Your task to perform on an android device: empty trash in the gmail app Image 0: 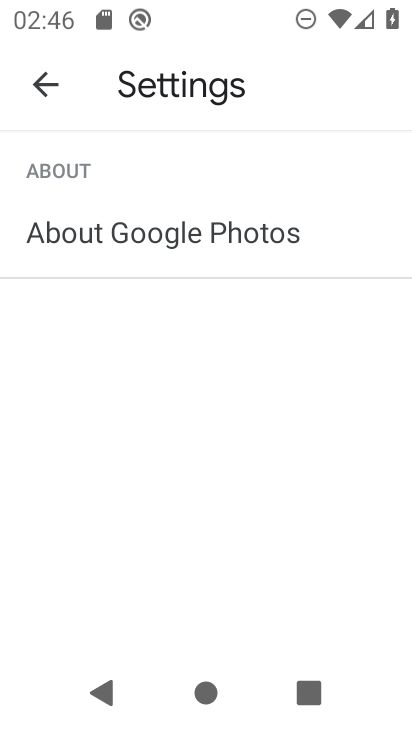
Step 0: press home button
Your task to perform on an android device: empty trash in the gmail app Image 1: 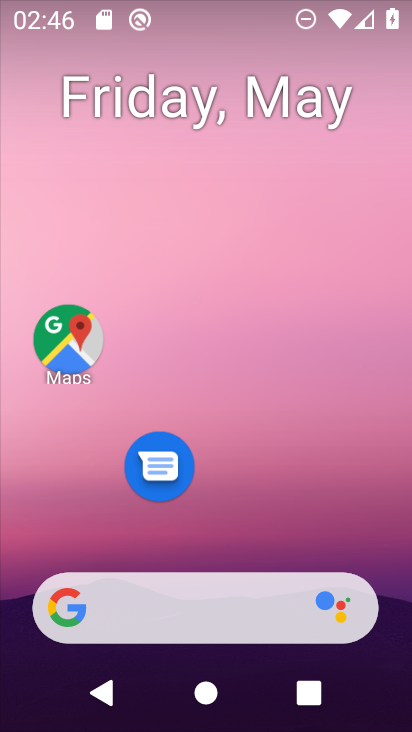
Step 1: drag from (311, 490) to (201, 51)
Your task to perform on an android device: empty trash in the gmail app Image 2: 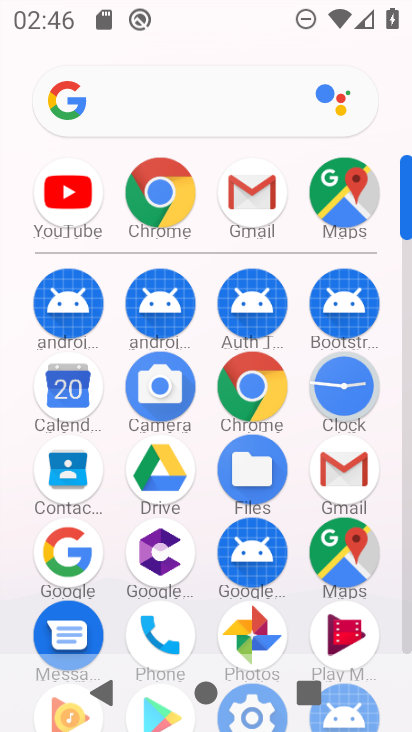
Step 2: click (237, 209)
Your task to perform on an android device: empty trash in the gmail app Image 3: 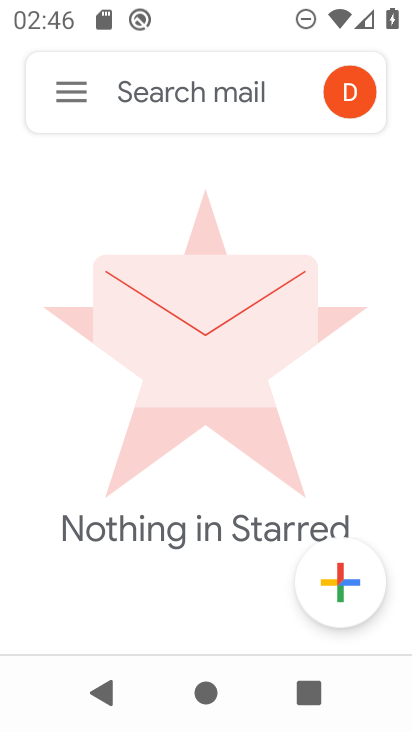
Step 3: click (64, 101)
Your task to perform on an android device: empty trash in the gmail app Image 4: 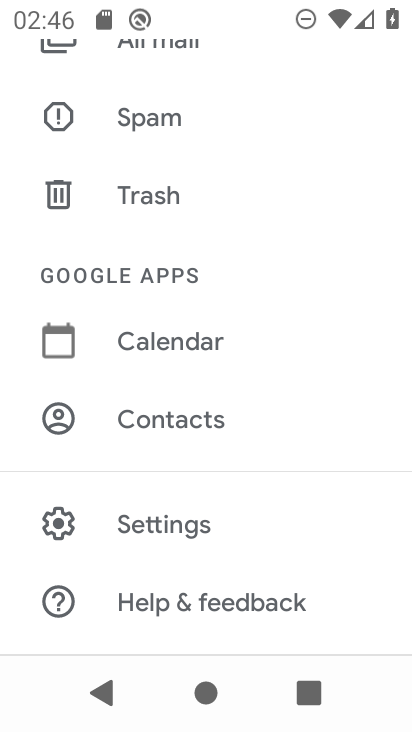
Step 4: click (174, 222)
Your task to perform on an android device: empty trash in the gmail app Image 5: 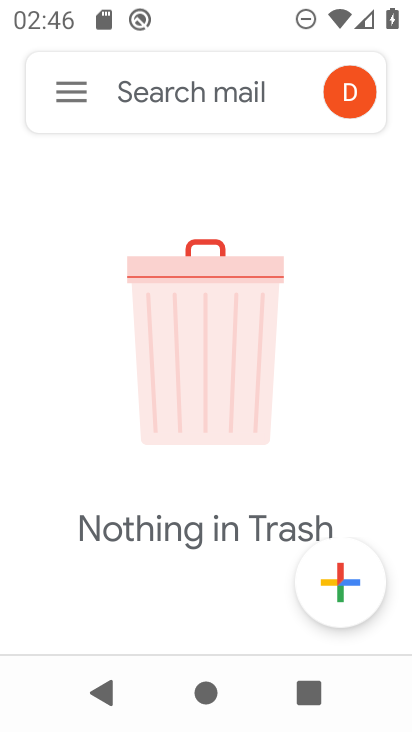
Step 5: task complete